Your task to perform on an android device: Go to Yahoo.com Image 0: 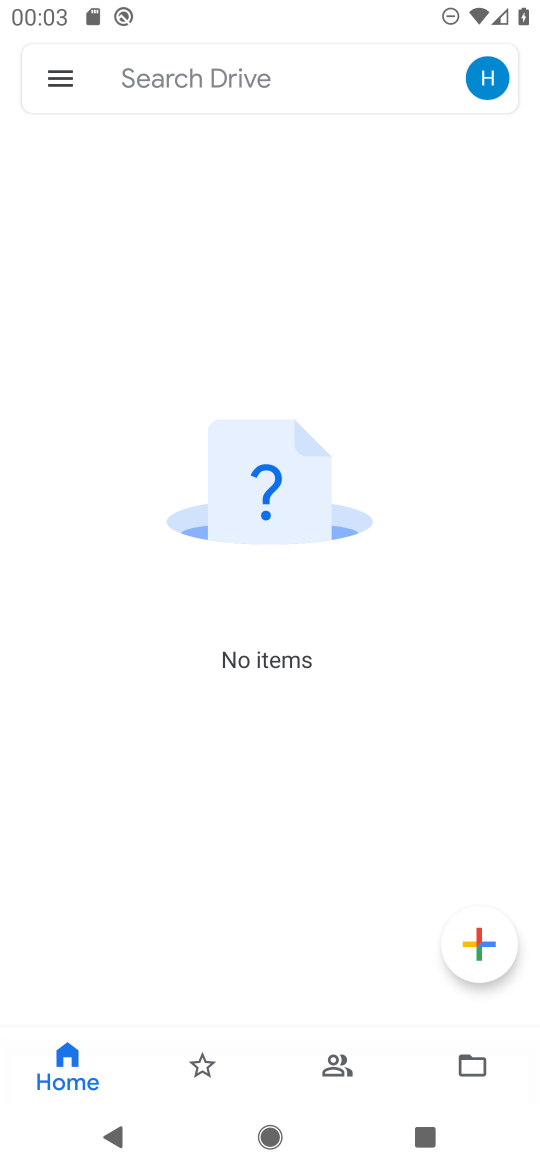
Step 0: press home button
Your task to perform on an android device: Go to Yahoo.com Image 1: 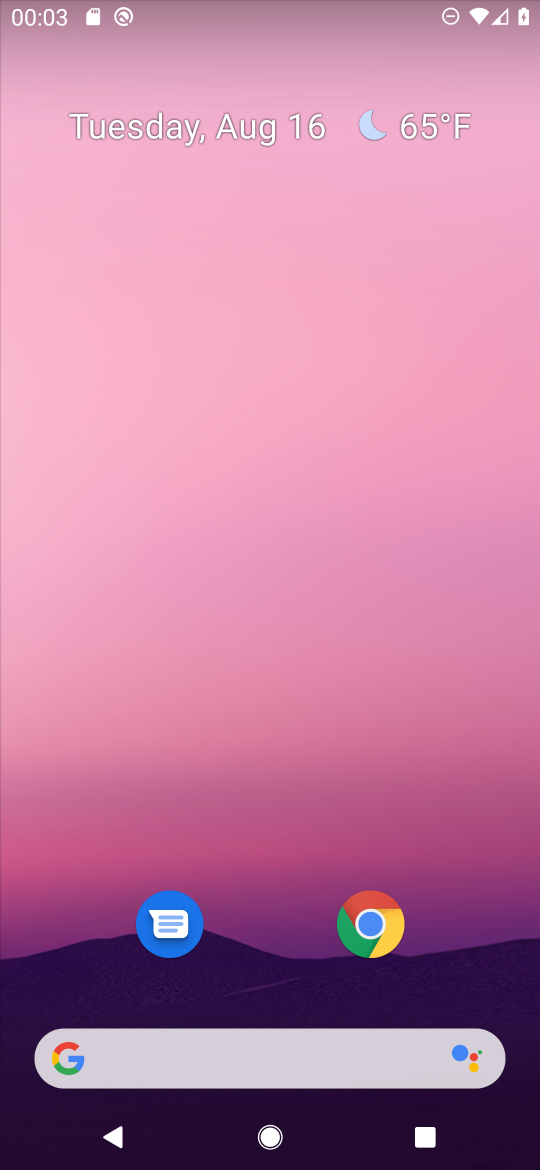
Step 1: click (387, 945)
Your task to perform on an android device: Go to Yahoo.com Image 2: 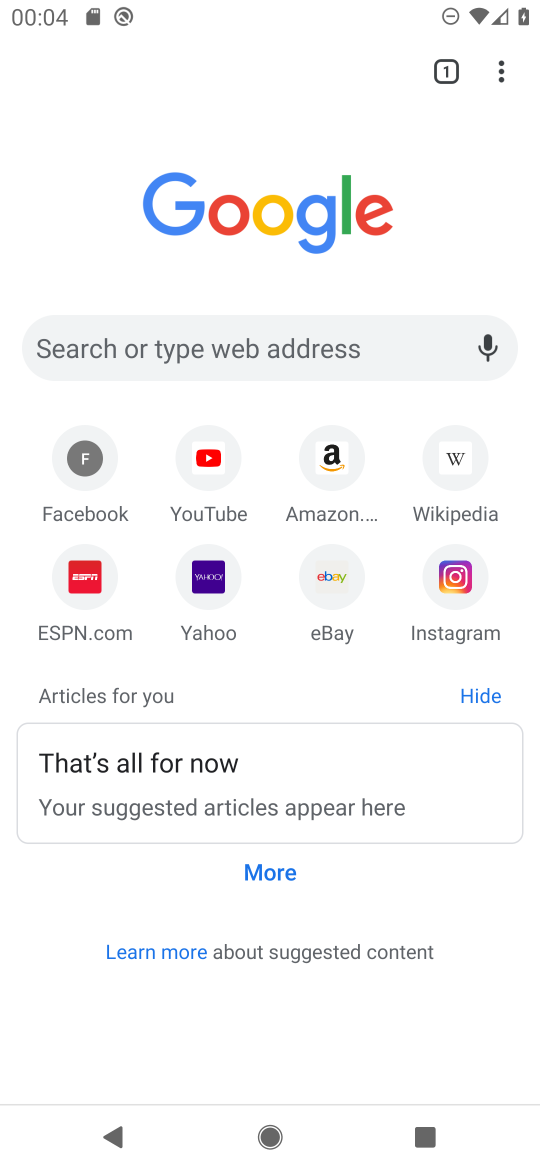
Step 2: click (218, 599)
Your task to perform on an android device: Go to Yahoo.com Image 3: 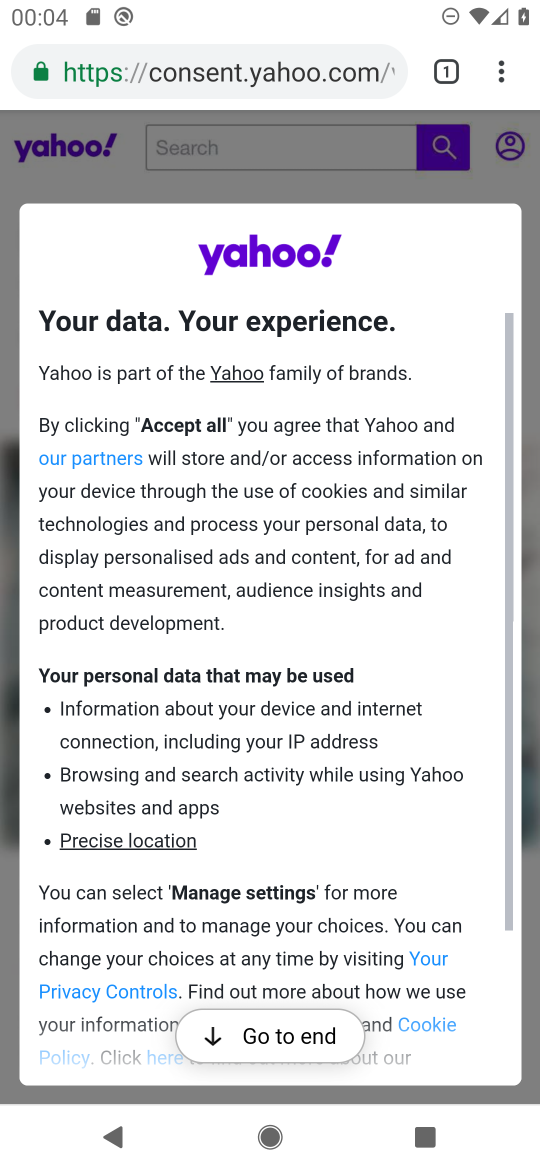
Step 3: task complete